Your task to perform on an android device: Open Google Image 0: 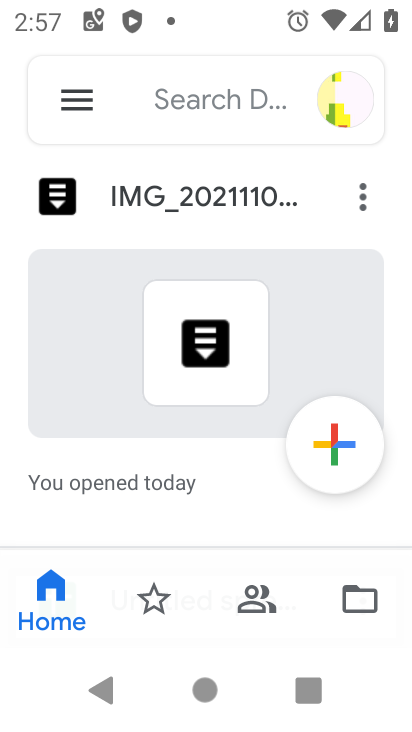
Step 0: press home button
Your task to perform on an android device: Open Google Image 1: 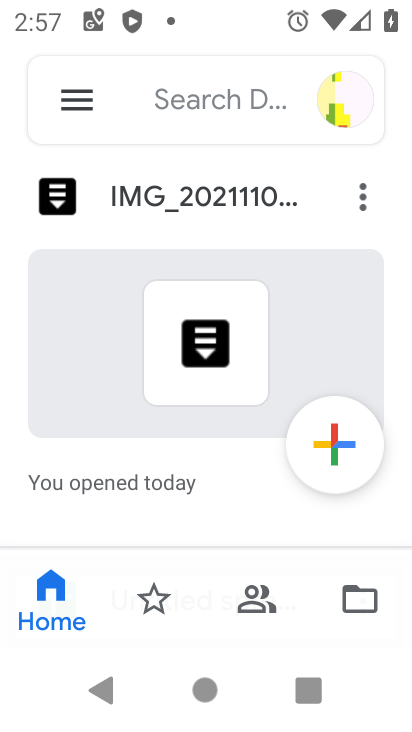
Step 1: press home button
Your task to perform on an android device: Open Google Image 2: 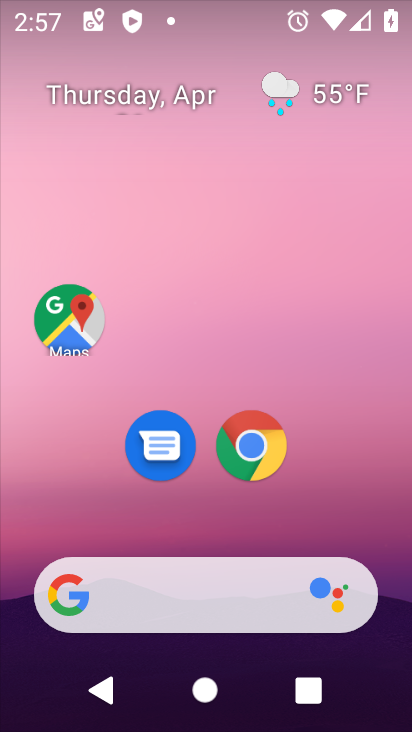
Step 2: drag from (205, 714) to (177, 136)
Your task to perform on an android device: Open Google Image 3: 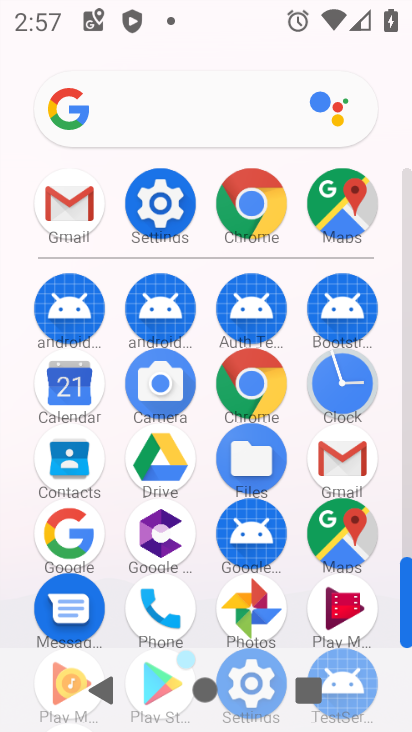
Step 3: click (54, 539)
Your task to perform on an android device: Open Google Image 4: 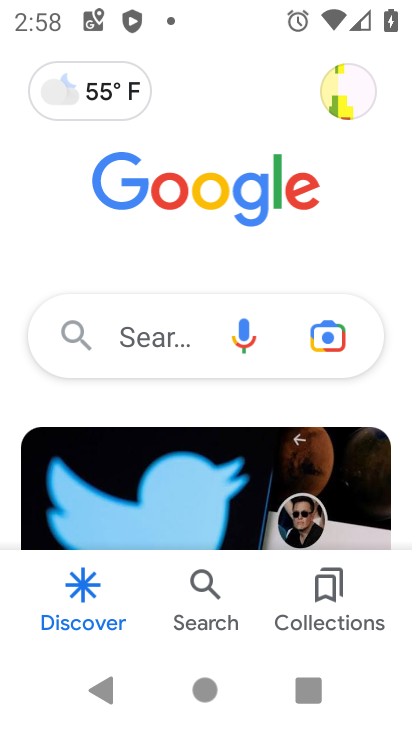
Step 4: task complete